Your task to perform on an android device: empty trash in google photos Image 0: 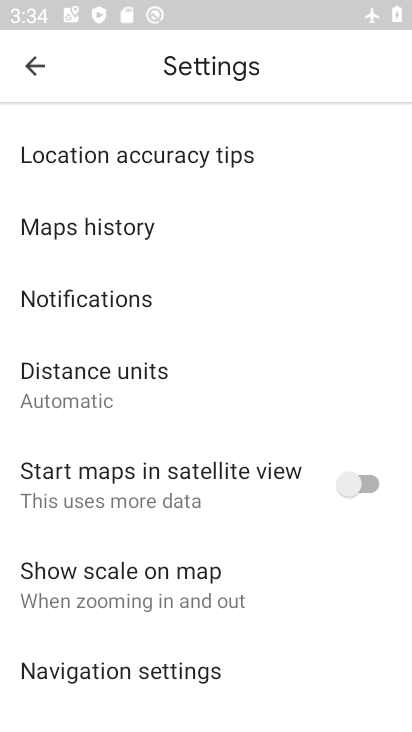
Step 0: press home button
Your task to perform on an android device: empty trash in google photos Image 1: 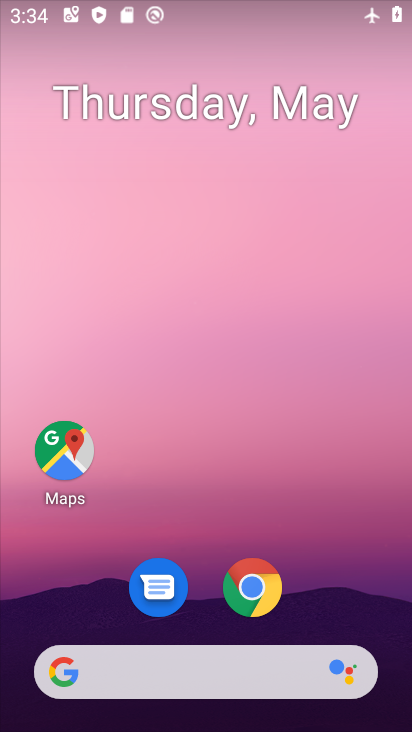
Step 1: drag from (189, 569) to (219, 162)
Your task to perform on an android device: empty trash in google photos Image 2: 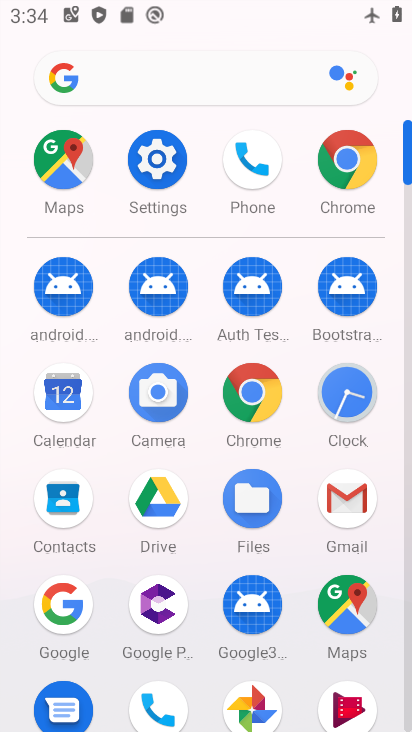
Step 2: drag from (196, 505) to (193, 309)
Your task to perform on an android device: empty trash in google photos Image 3: 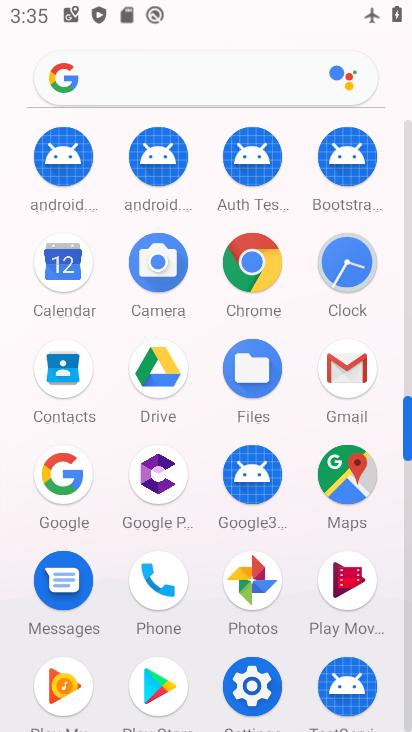
Step 3: click (272, 581)
Your task to perform on an android device: empty trash in google photos Image 4: 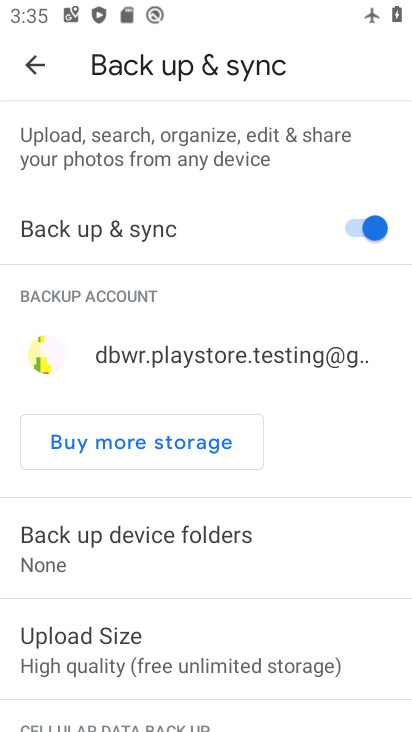
Step 4: click (40, 71)
Your task to perform on an android device: empty trash in google photos Image 5: 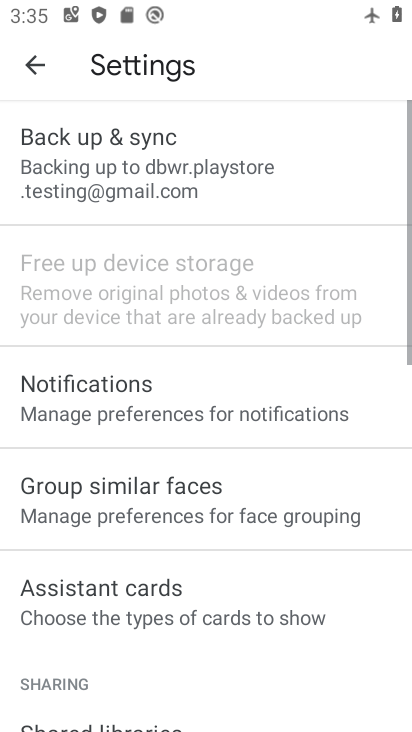
Step 5: click (40, 71)
Your task to perform on an android device: empty trash in google photos Image 6: 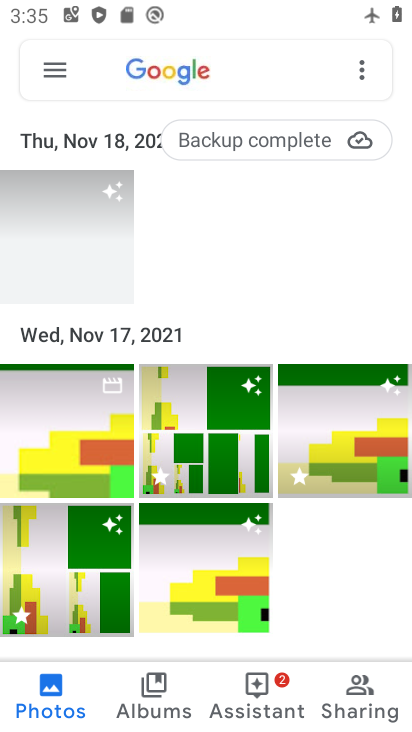
Step 6: click (40, 71)
Your task to perform on an android device: empty trash in google photos Image 7: 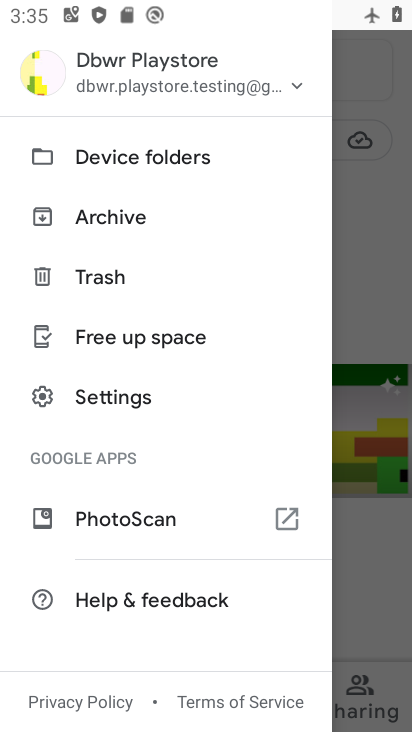
Step 7: click (115, 277)
Your task to perform on an android device: empty trash in google photos Image 8: 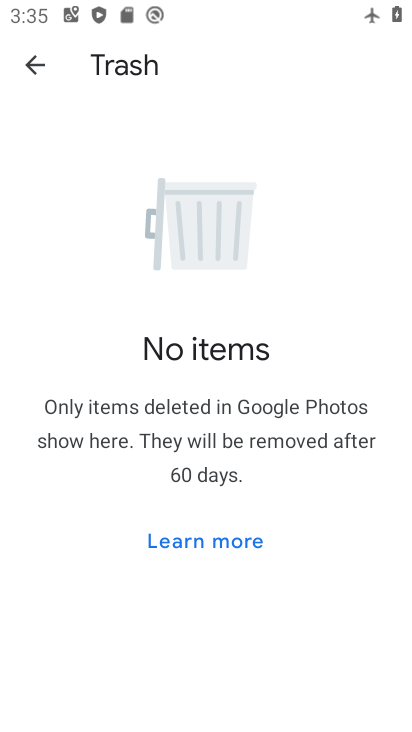
Step 8: task complete